Your task to perform on an android device: Go to CNN.com Image 0: 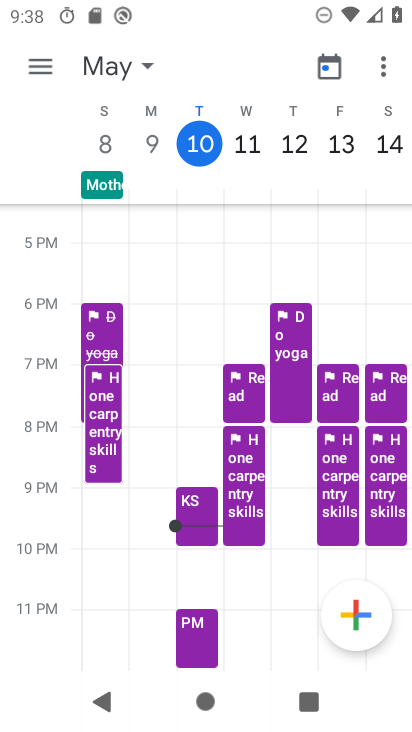
Step 0: press home button
Your task to perform on an android device: Go to CNN.com Image 1: 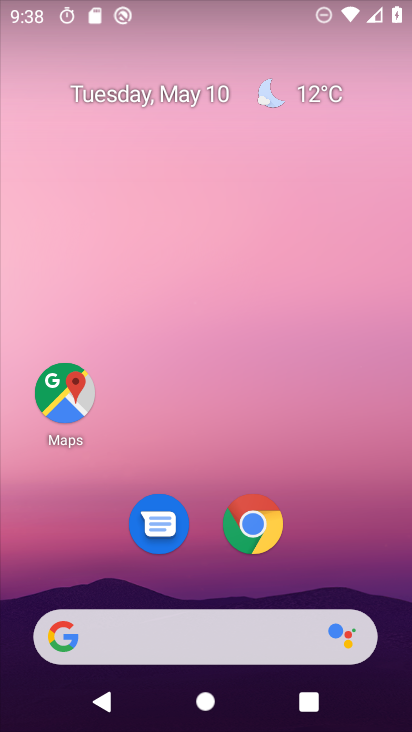
Step 1: click (201, 631)
Your task to perform on an android device: Go to CNN.com Image 2: 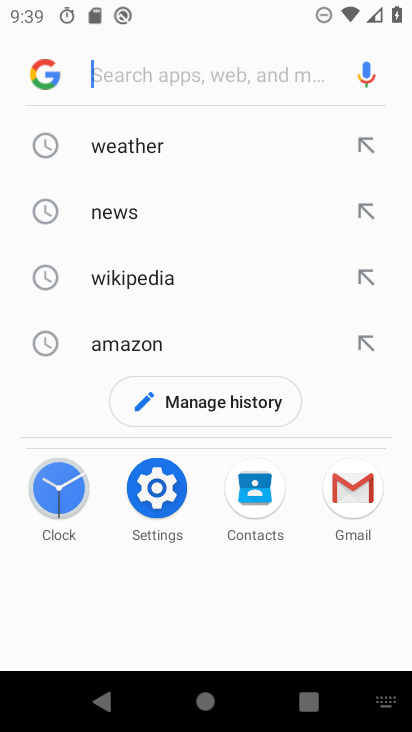
Step 2: press home button
Your task to perform on an android device: Go to CNN.com Image 3: 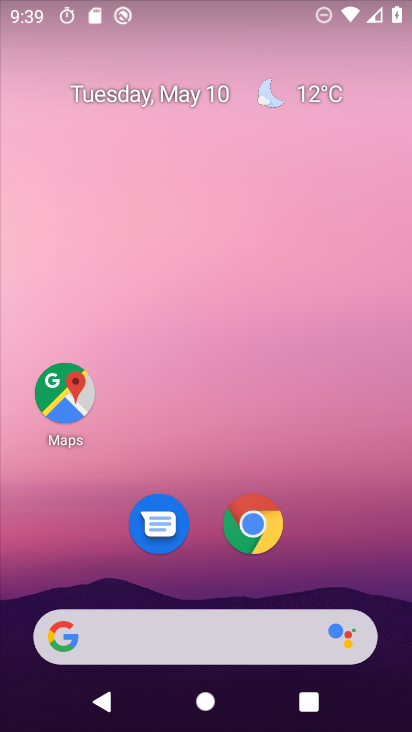
Step 3: click (226, 648)
Your task to perform on an android device: Go to CNN.com Image 4: 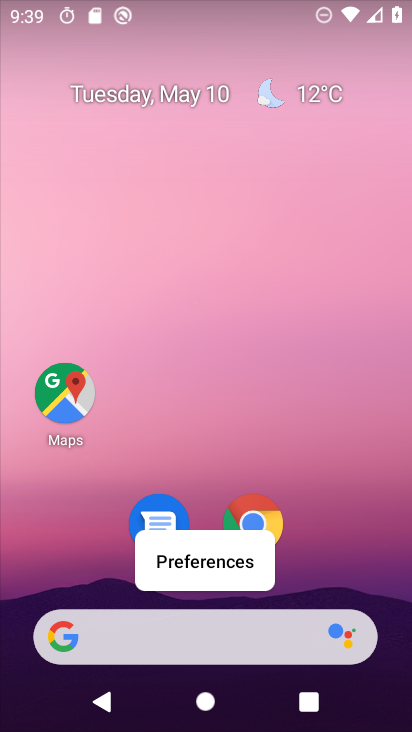
Step 4: click (270, 647)
Your task to perform on an android device: Go to CNN.com Image 5: 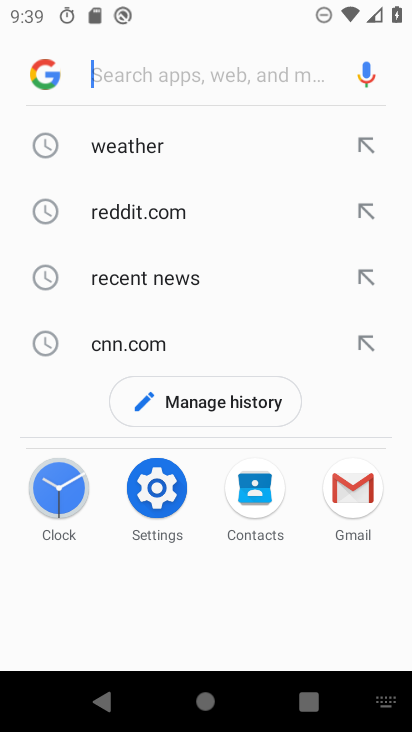
Step 5: click (139, 345)
Your task to perform on an android device: Go to CNN.com Image 6: 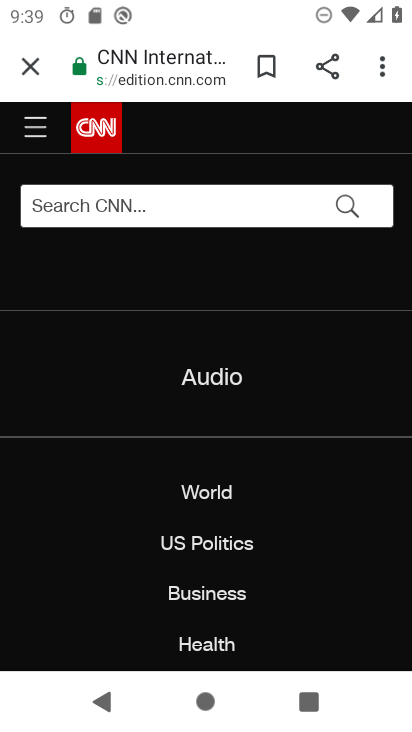
Step 6: task complete